Your task to perform on an android device: Open Yahoo.com Image 0: 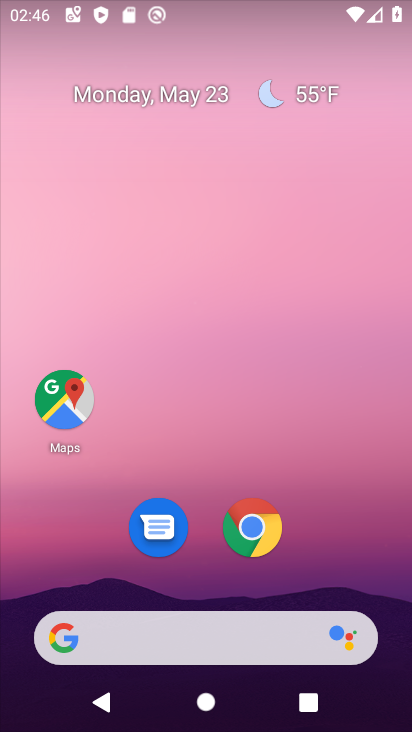
Step 0: drag from (325, 580) to (259, 50)
Your task to perform on an android device: Open Yahoo.com Image 1: 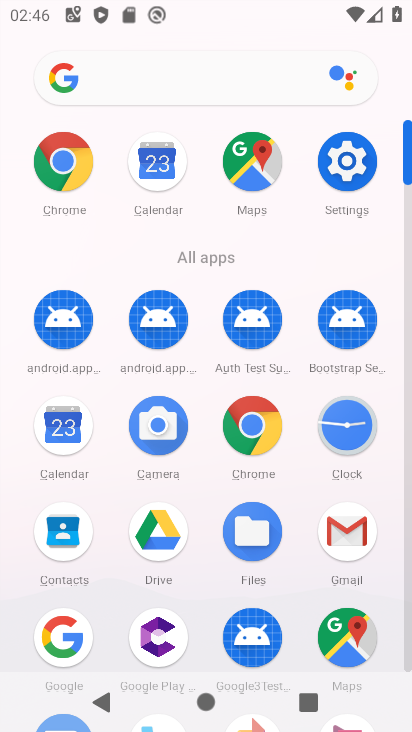
Step 1: drag from (20, 580) to (9, 195)
Your task to perform on an android device: Open Yahoo.com Image 2: 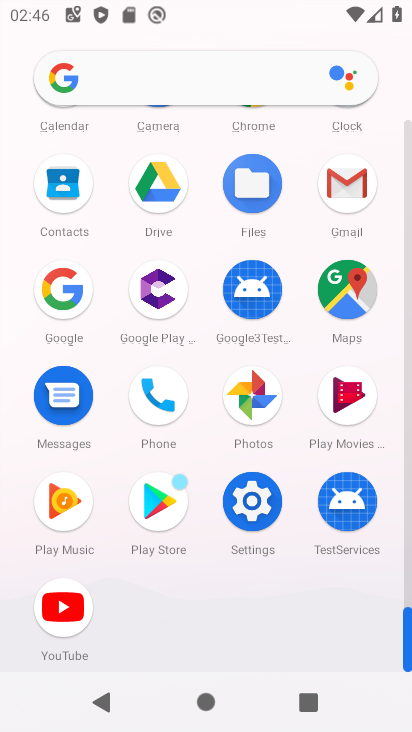
Step 2: drag from (7, 198) to (21, 455)
Your task to perform on an android device: Open Yahoo.com Image 3: 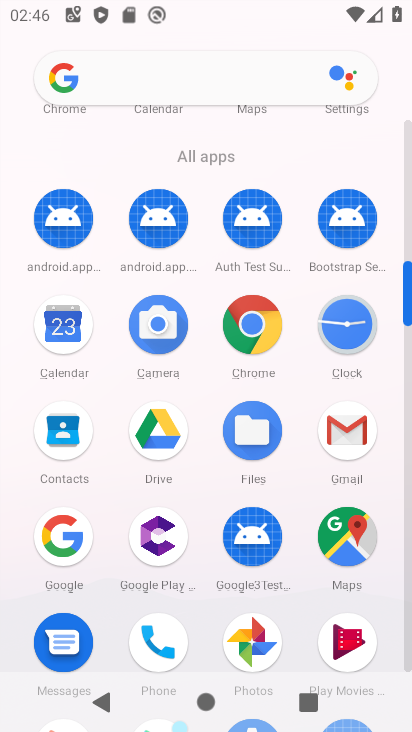
Step 3: click (255, 311)
Your task to perform on an android device: Open Yahoo.com Image 4: 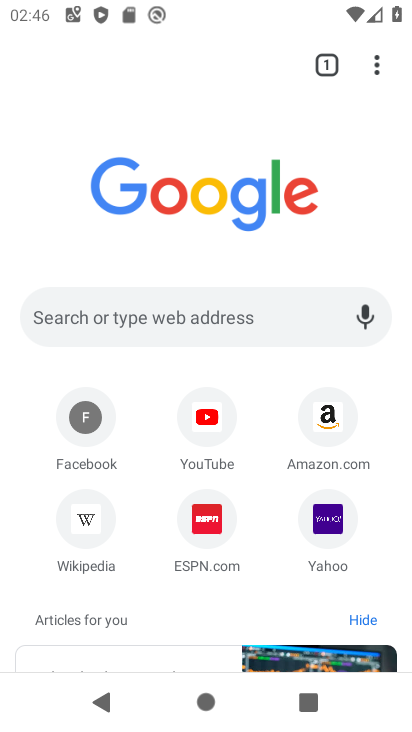
Step 4: click (323, 502)
Your task to perform on an android device: Open Yahoo.com Image 5: 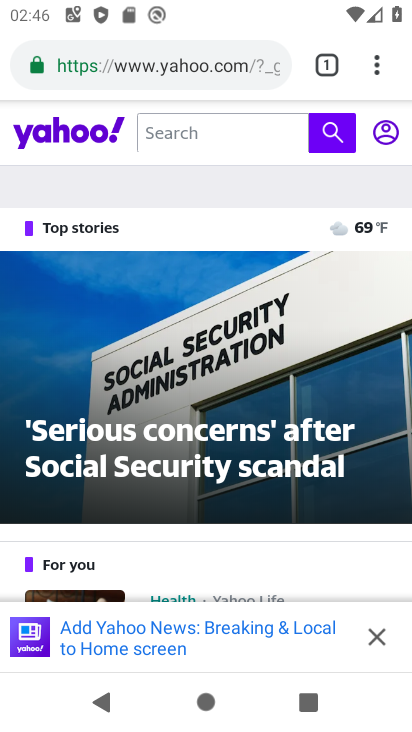
Step 5: task complete